Your task to perform on an android device: turn on wifi Image 0: 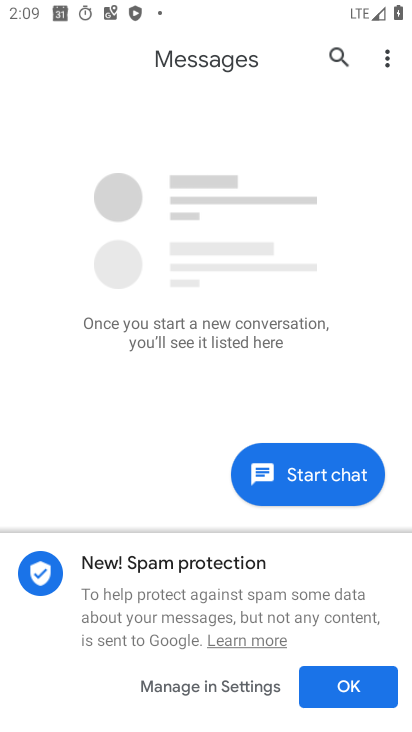
Step 0: press home button
Your task to perform on an android device: turn on wifi Image 1: 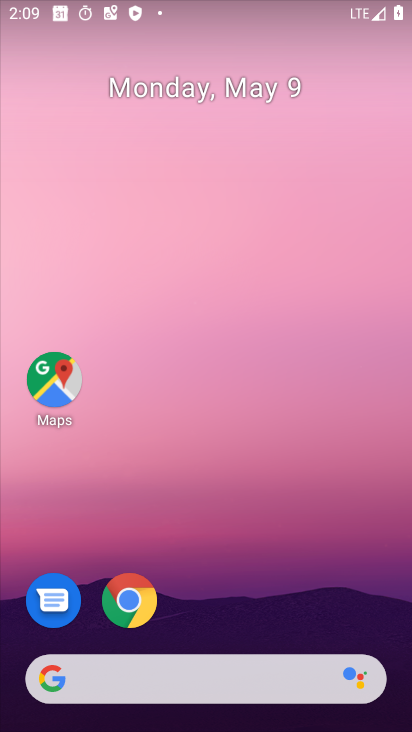
Step 1: drag from (268, 11) to (264, 513)
Your task to perform on an android device: turn on wifi Image 2: 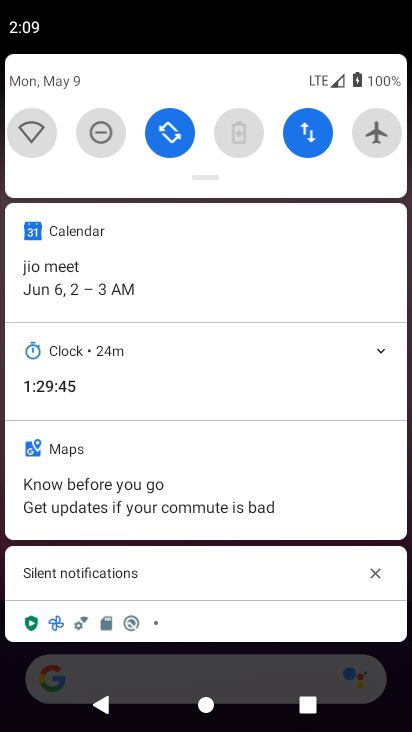
Step 2: click (44, 132)
Your task to perform on an android device: turn on wifi Image 3: 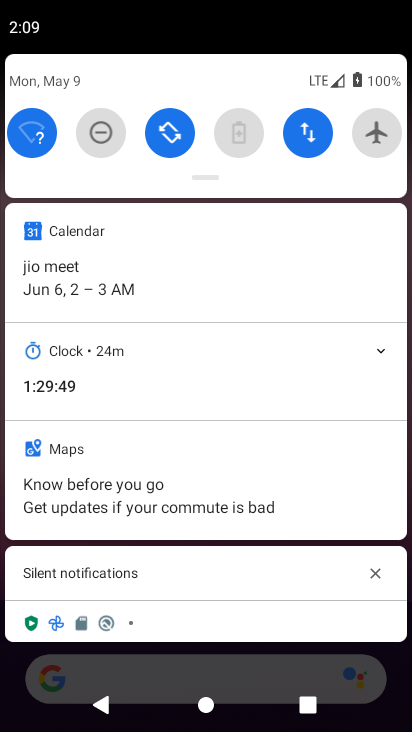
Step 3: task complete